Your task to perform on an android device: Open calendar and show me the third week of next month Image 0: 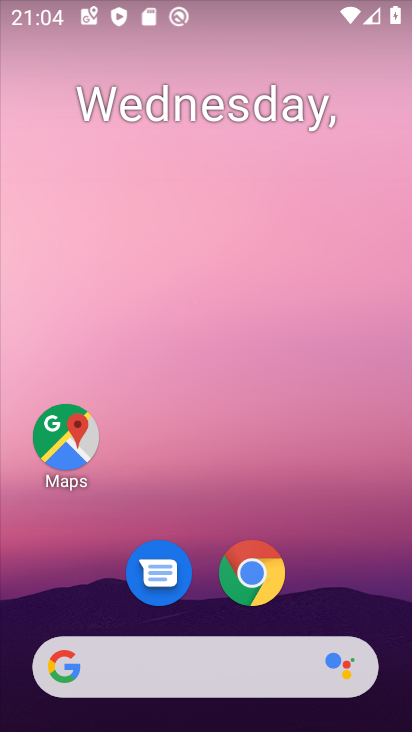
Step 0: drag from (398, 621) to (366, 215)
Your task to perform on an android device: Open calendar and show me the third week of next month Image 1: 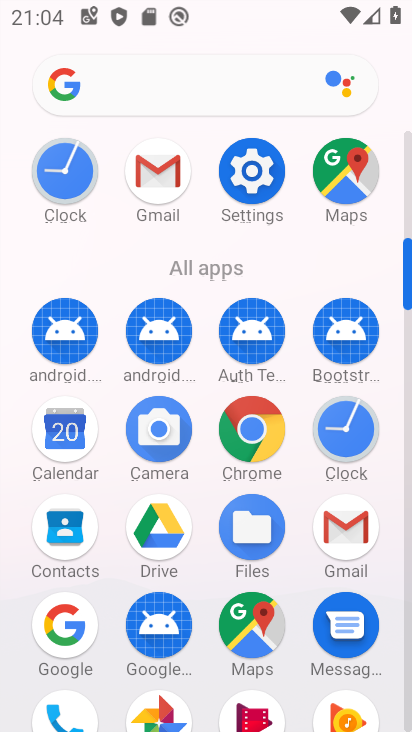
Step 1: click (73, 437)
Your task to perform on an android device: Open calendar and show me the third week of next month Image 2: 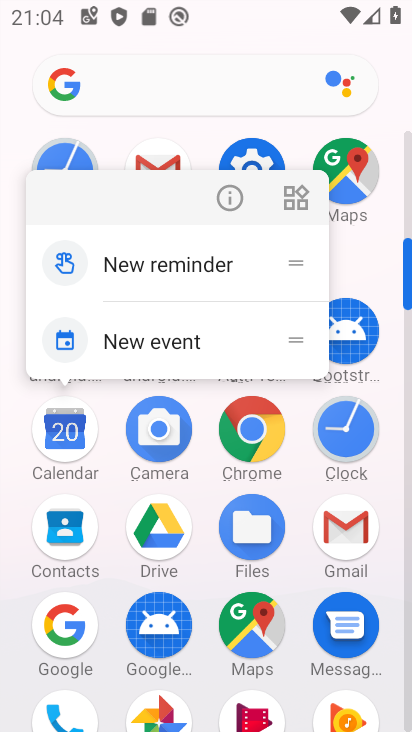
Step 2: click (73, 437)
Your task to perform on an android device: Open calendar and show me the third week of next month Image 3: 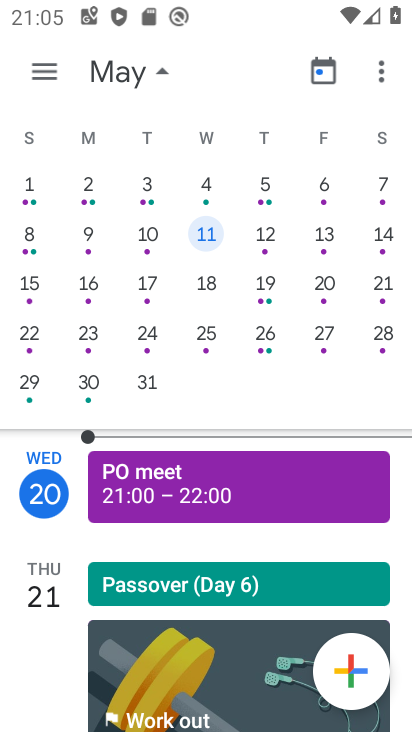
Step 3: click (200, 279)
Your task to perform on an android device: Open calendar and show me the third week of next month Image 4: 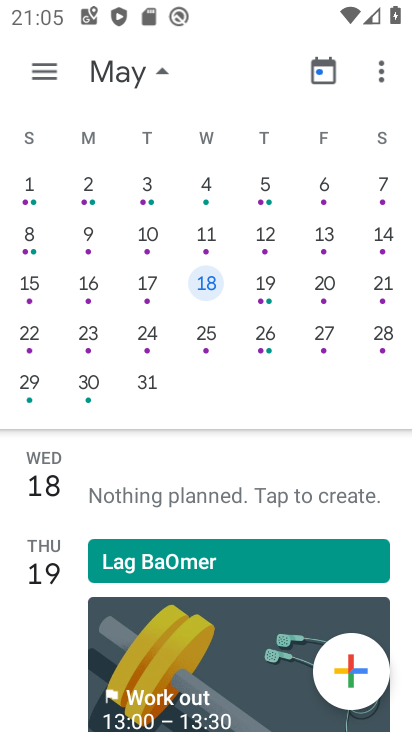
Step 4: task complete